Your task to perform on an android device: open the mobile data screen to see how much data has been used Image 0: 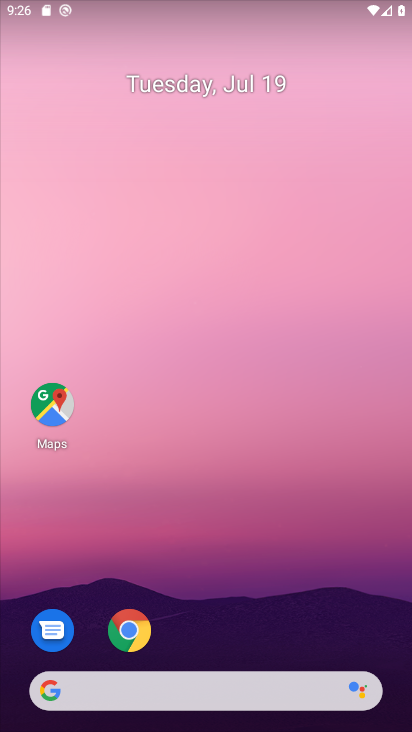
Step 0: drag from (200, 645) to (230, 2)
Your task to perform on an android device: open the mobile data screen to see how much data has been used Image 1: 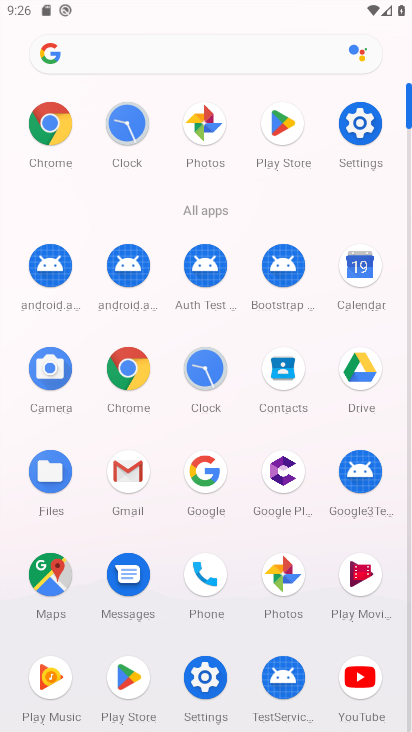
Step 1: click (202, 684)
Your task to perform on an android device: open the mobile data screen to see how much data has been used Image 2: 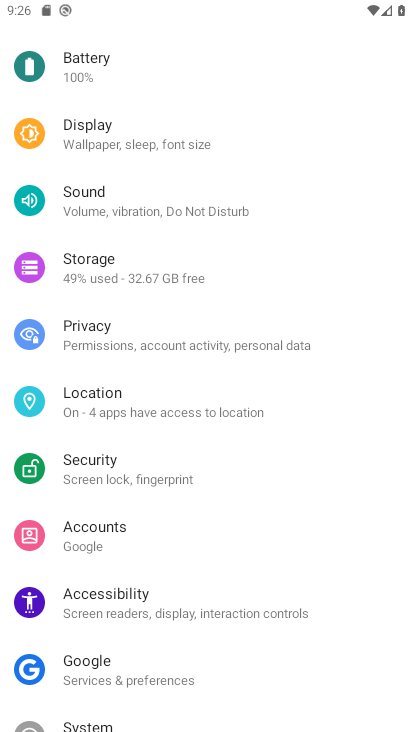
Step 2: drag from (132, 137) to (130, 450)
Your task to perform on an android device: open the mobile data screen to see how much data has been used Image 3: 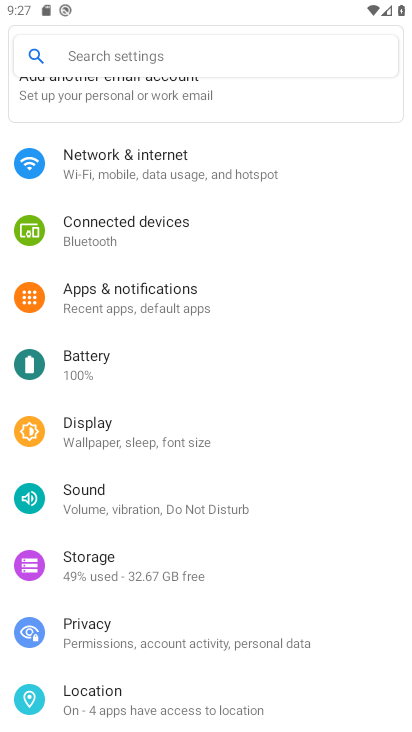
Step 3: click (143, 173)
Your task to perform on an android device: open the mobile data screen to see how much data has been used Image 4: 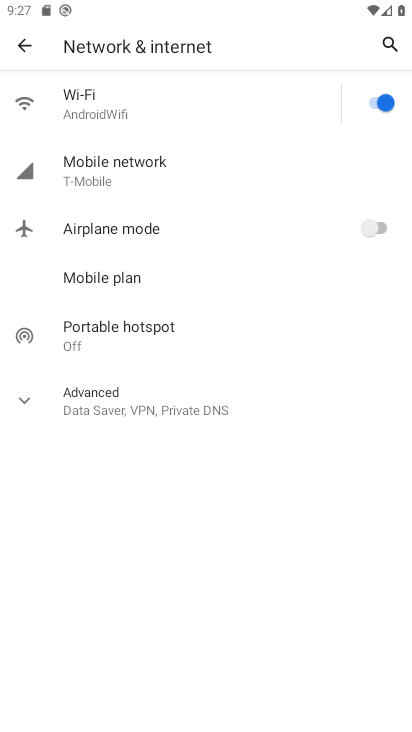
Step 4: click (118, 167)
Your task to perform on an android device: open the mobile data screen to see how much data has been used Image 5: 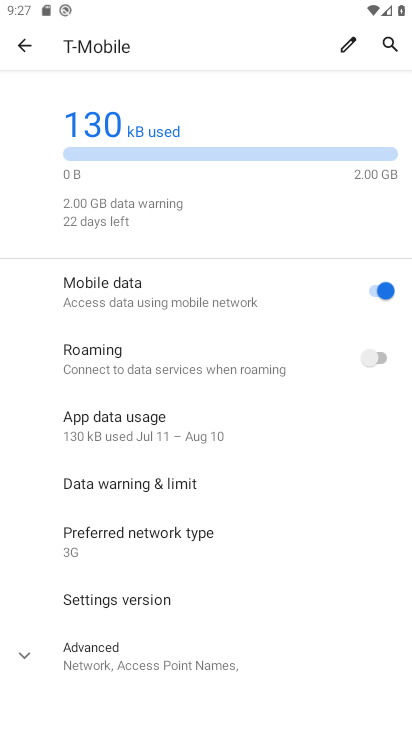
Step 5: drag from (172, 517) to (169, 324)
Your task to perform on an android device: open the mobile data screen to see how much data has been used Image 6: 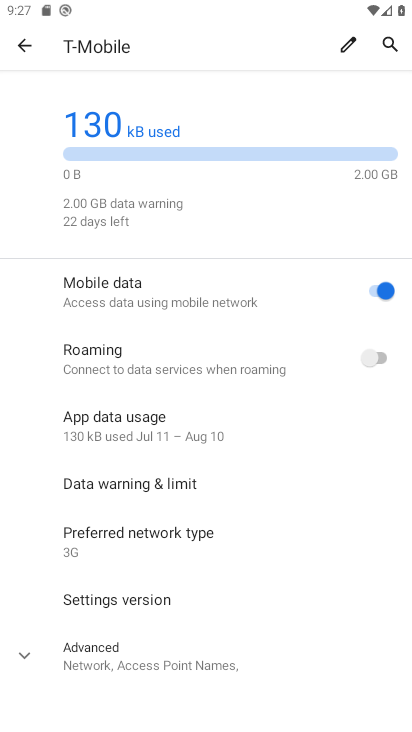
Step 6: click (150, 433)
Your task to perform on an android device: open the mobile data screen to see how much data has been used Image 7: 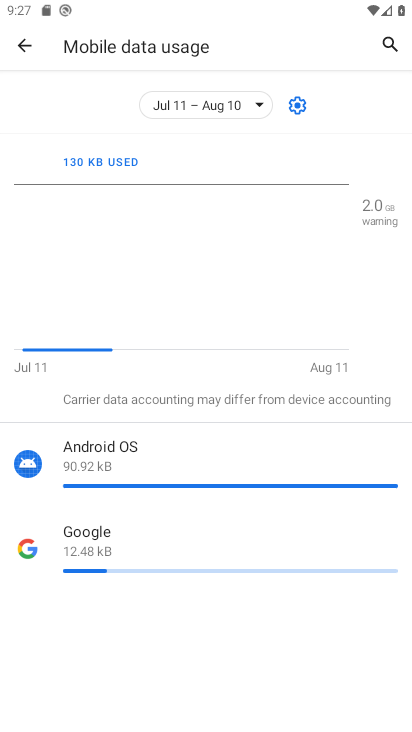
Step 7: task complete